Your task to perform on an android device: Open ESPN.com Image 0: 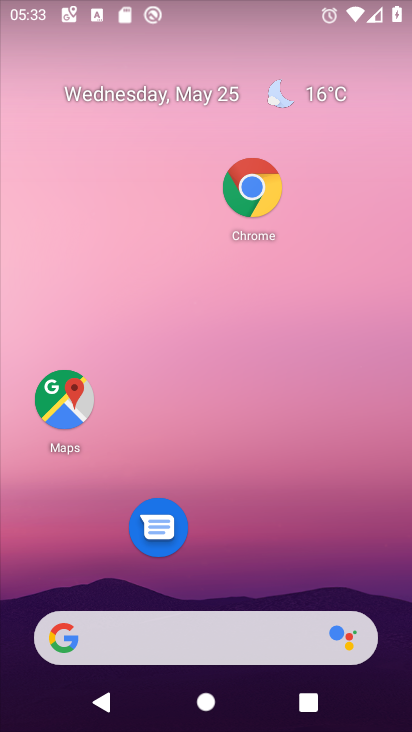
Step 0: drag from (292, 568) to (290, 11)
Your task to perform on an android device: Open ESPN.com Image 1: 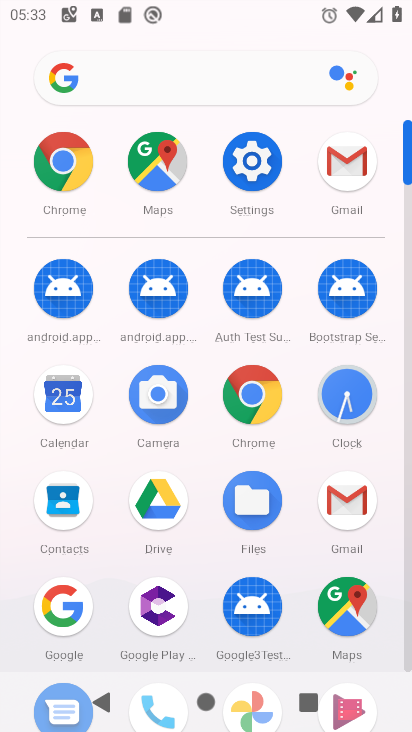
Step 1: click (236, 398)
Your task to perform on an android device: Open ESPN.com Image 2: 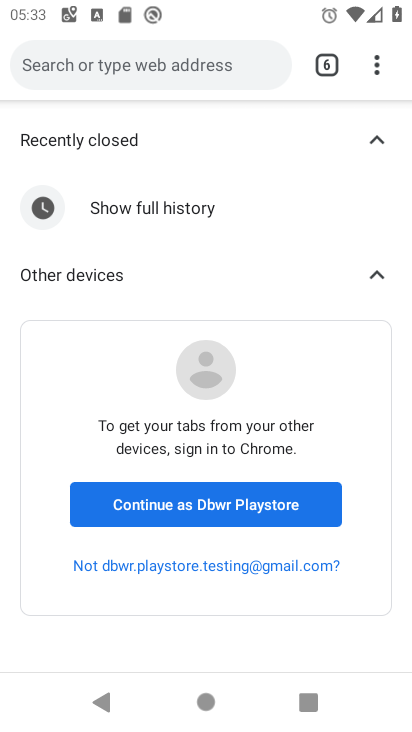
Step 2: click (176, 71)
Your task to perform on an android device: Open ESPN.com Image 3: 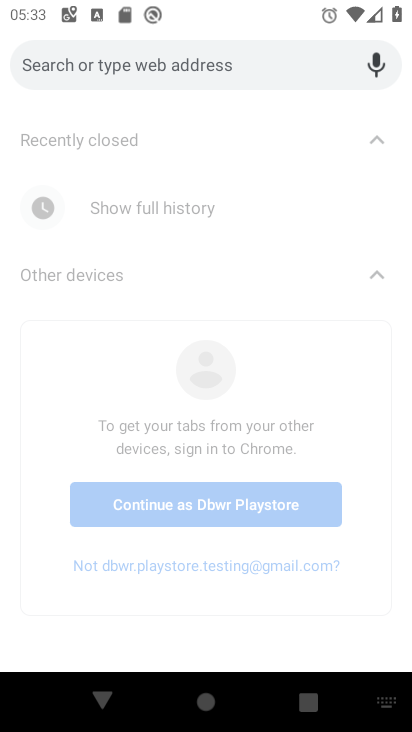
Step 3: type "espn.com"
Your task to perform on an android device: Open ESPN.com Image 4: 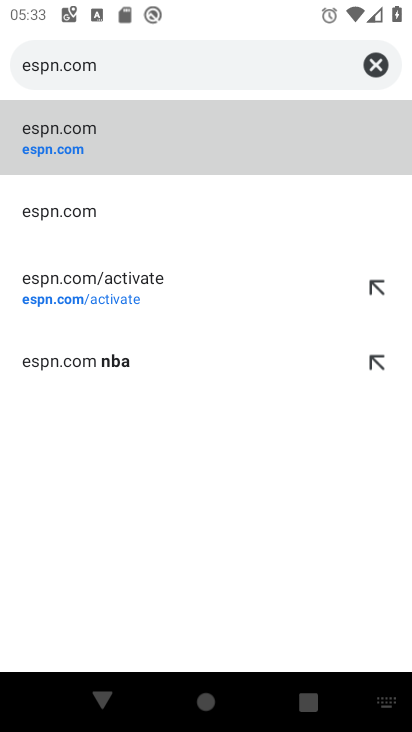
Step 4: click (164, 137)
Your task to perform on an android device: Open ESPN.com Image 5: 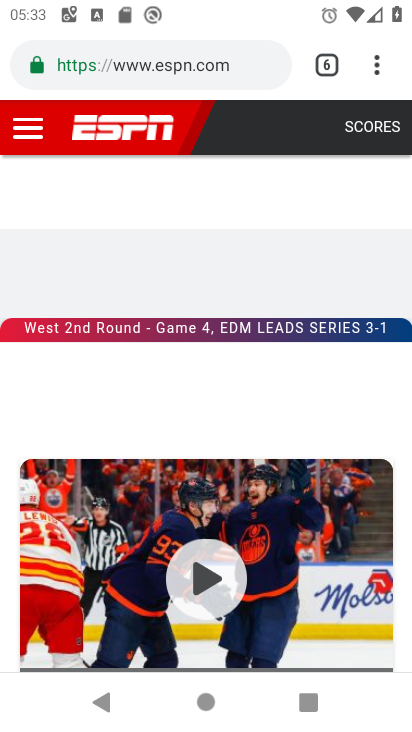
Step 5: task complete